Your task to perform on an android device: open wifi settings Image 0: 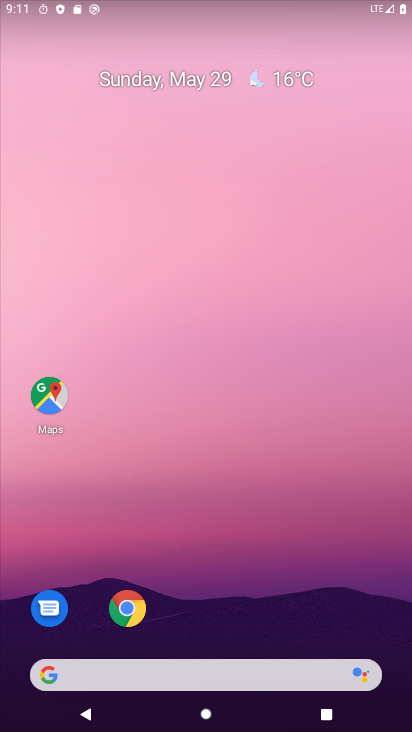
Step 0: drag from (192, 617) to (205, 77)
Your task to perform on an android device: open wifi settings Image 1: 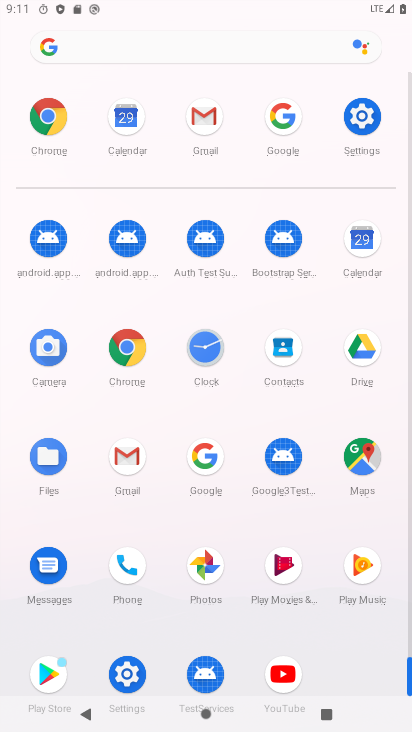
Step 1: click (365, 125)
Your task to perform on an android device: open wifi settings Image 2: 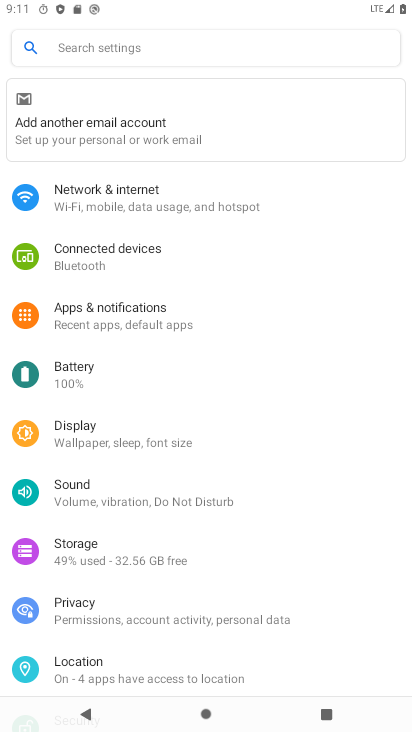
Step 2: click (165, 221)
Your task to perform on an android device: open wifi settings Image 3: 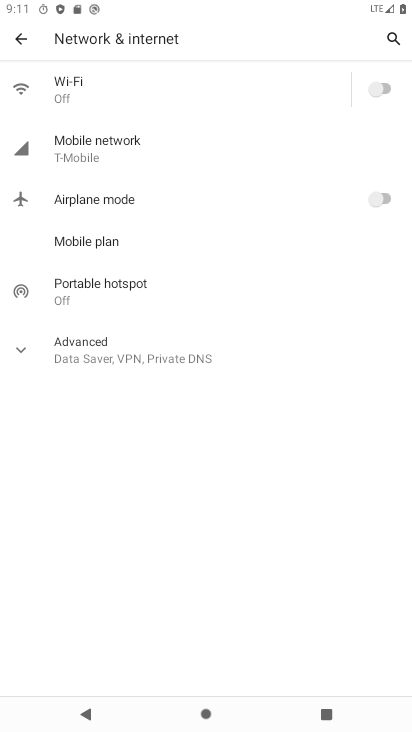
Step 3: click (138, 91)
Your task to perform on an android device: open wifi settings Image 4: 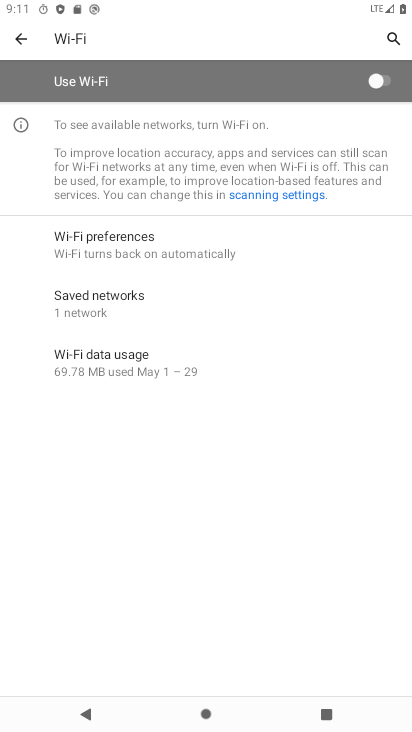
Step 4: task complete